Your task to perform on an android device: delete browsing data in the chrome app Image 0: 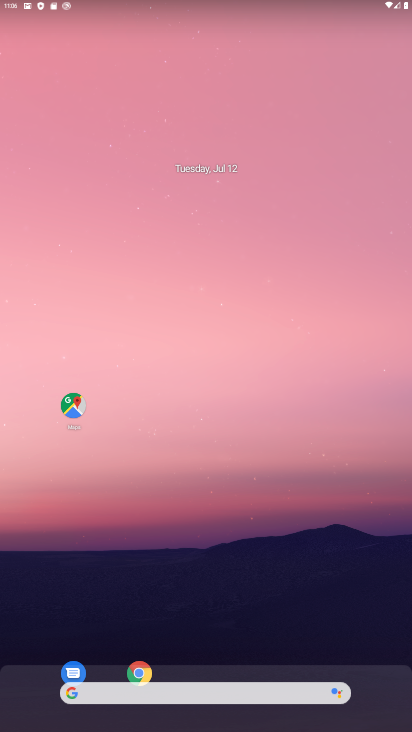
Step 0: drag from (254, 688) to (230, 532)
Your task to perform on an android device: delete browsing data in the chrome app Image 1: 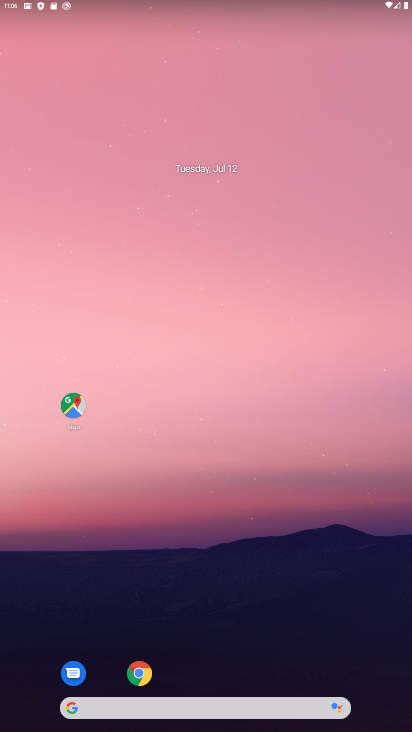
Step 1: click (143, 684)
Your task to perform on an android device: delete browsing data in the chrome app Image 2: 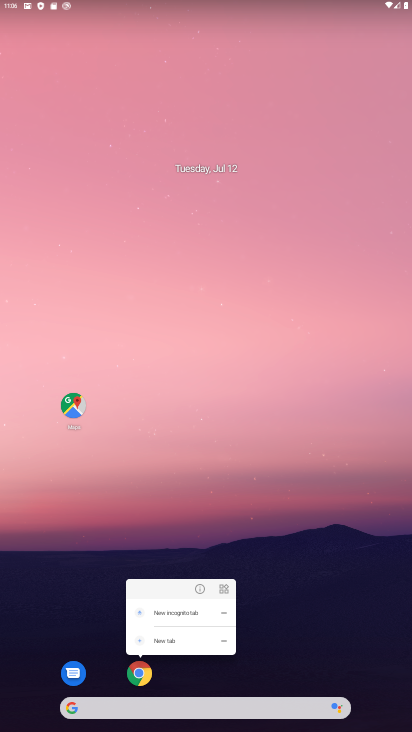
Step 2: click (141, 683)
Your task to perform on an android device: delete browsing data in the chrome app Image 3: 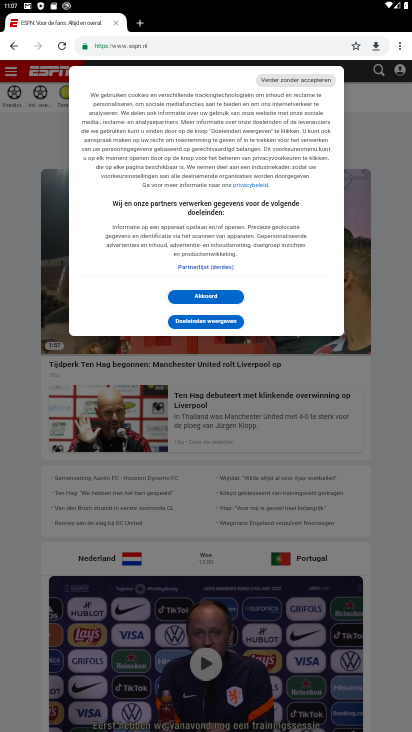
Step 3: click (396, 44)
Your task to perform on an android device: delete browsing data in the chrome app Image 4: 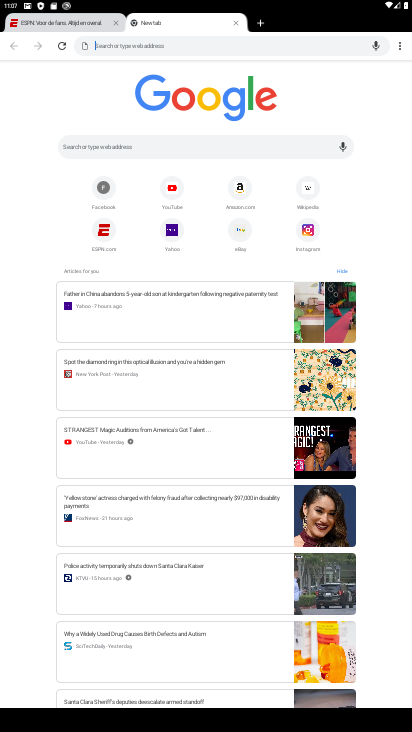
Step 4: click (400, 49)
Your task to perform on an android device: delete browsing data in the chrome app Image 5: 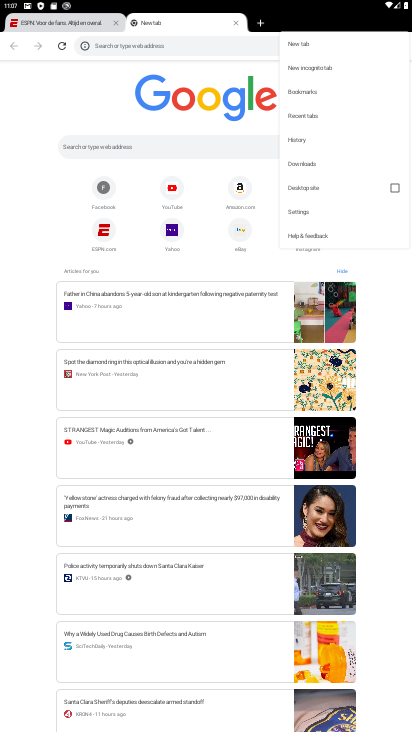
Step 5: click (305, 135)
Your task to perform on an android device: delete browsing data in the chrome app Image 6: 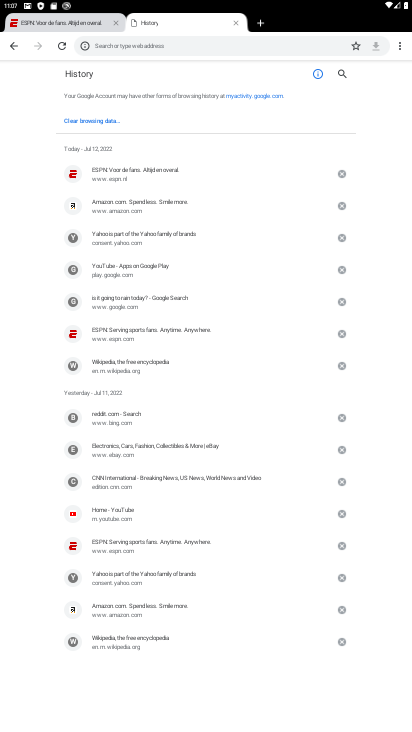
Step 6: click (75, 118)
Your task to perform on an android device: delete browsing data in the chrome app Image 7: 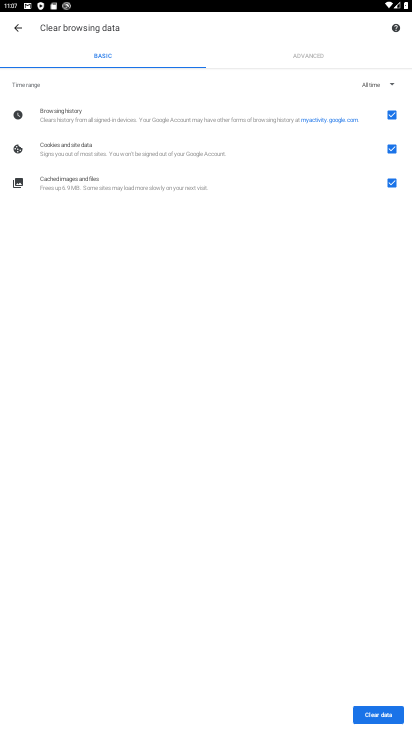
Step 7: click (373, 713)
Your task to perform on an android device: delete browsing data in the chrome app Image 8: 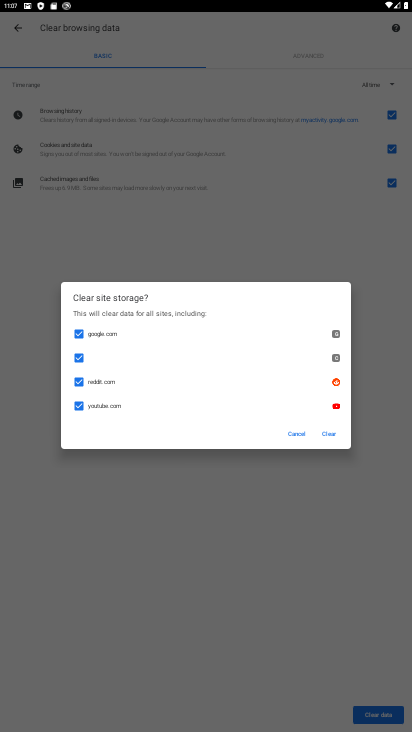
Step 8: click (328, 434)
Your task to perform on an android device: delete browsing data in the chrome app Image 9: 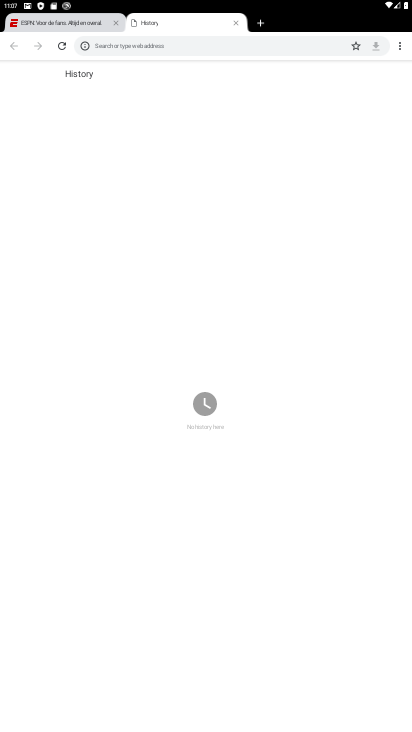
Step 9: click (237, 23)
Your task to perform on an android device: delete browsing data in the chrome app Image 10: 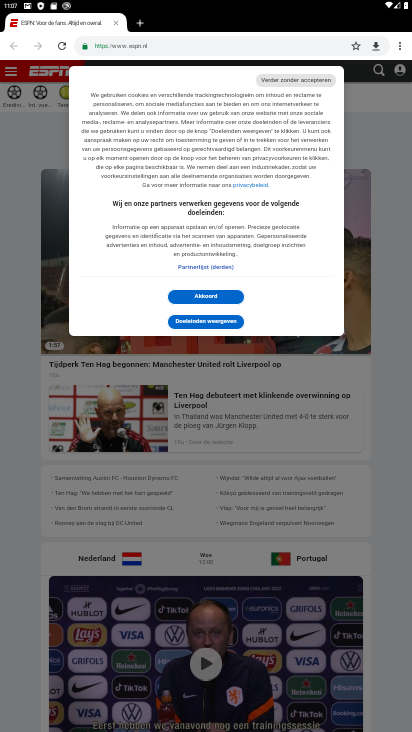
Step 10: task complete